Your task to perform on an android device: turn off data saver in the chrome app Image 0: 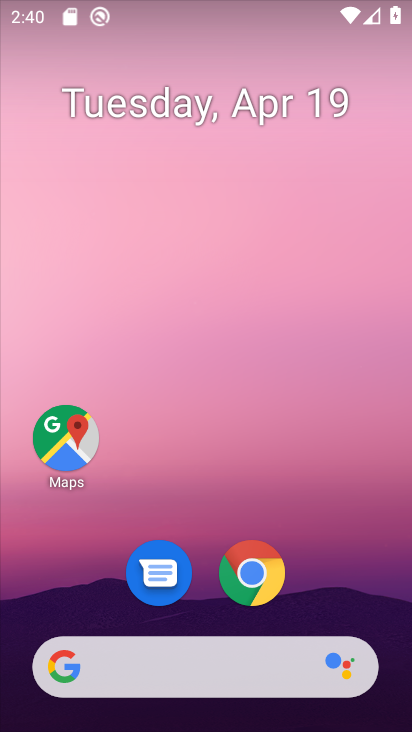
Step 0: click (276, 597)
Your task to perform on an android device: turn off data saver in the chrome app Image 1: 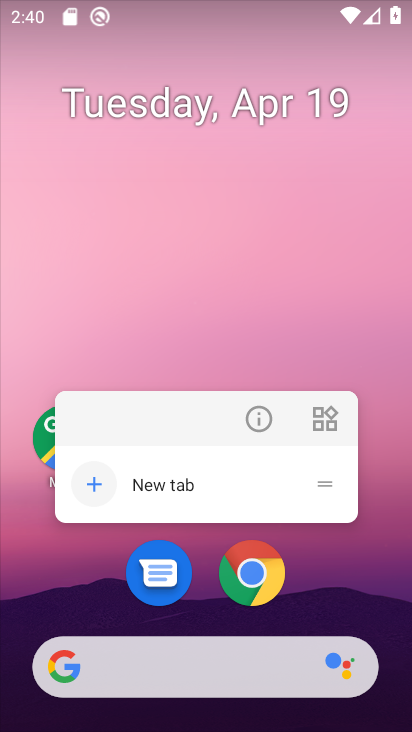
Step 1: click (263, 558)
Your task to perform on an android device: turn off data saver in the chrome app Image 2: 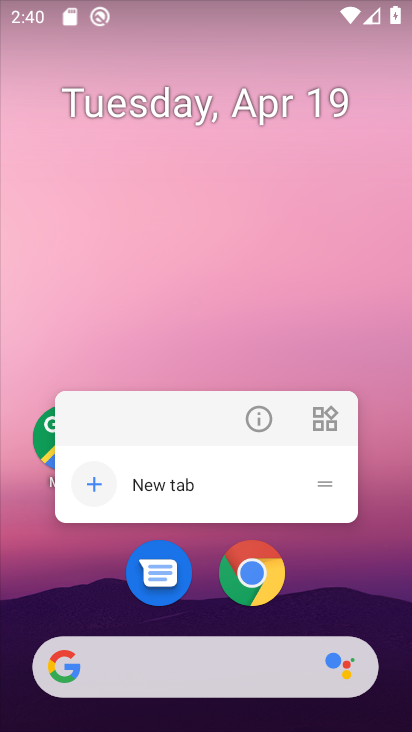
Step 2: click (258, 578)
Your task to perform on an android device: turn off data saver in the chrome app Image 3: 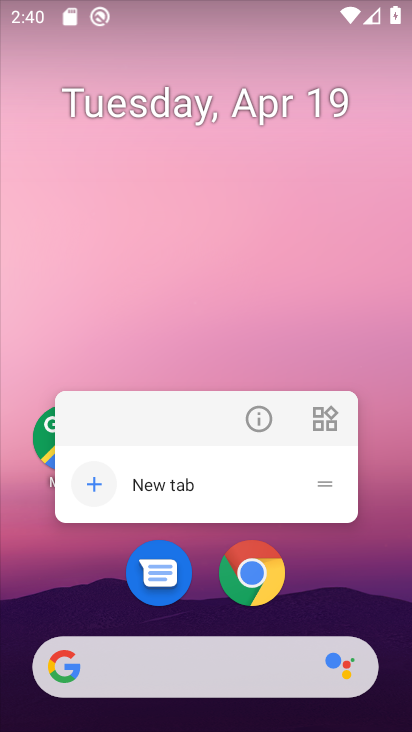
Step 3: click (246, 578)
Your task to perform on an android device: turn off data saver in the chrome app Image 4: 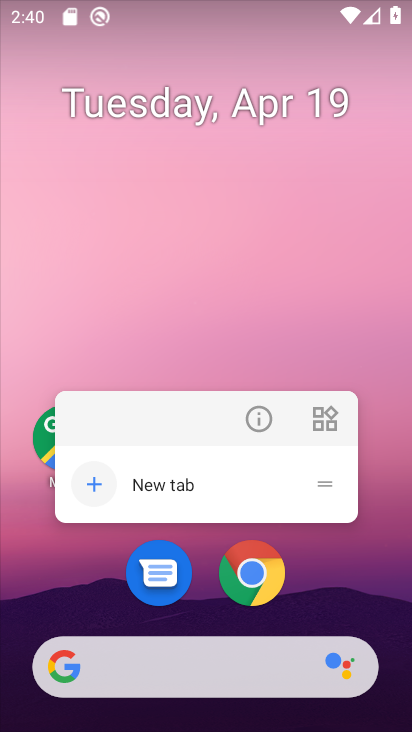
Step 4: click (246, 578)
Your task to perform on an android device: turn off data saver in the chrome app Image 5: 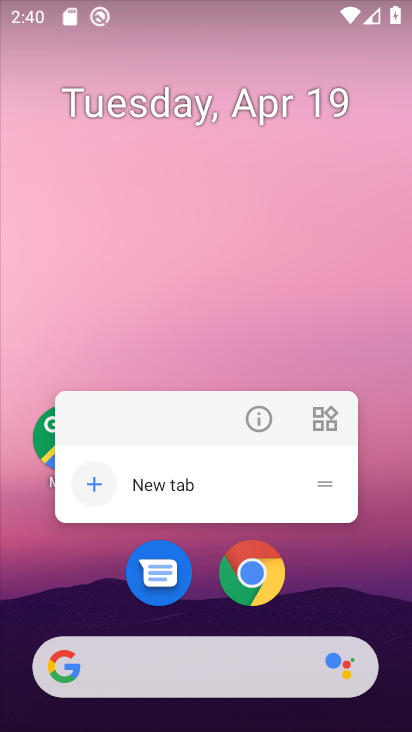
Step 5: click (272, 555)
Your task to perform on an android device: turn off data saver in the chrome app Image 6: 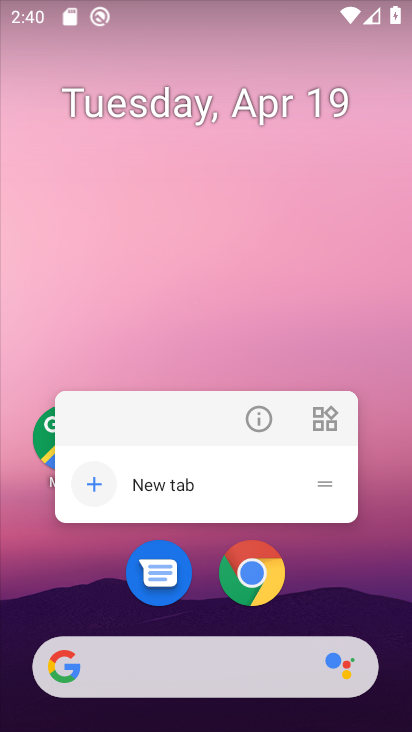
Step 6: click (241, 557)
Your task to perform on an android device: turn off data saver in the chrome app Image 7: 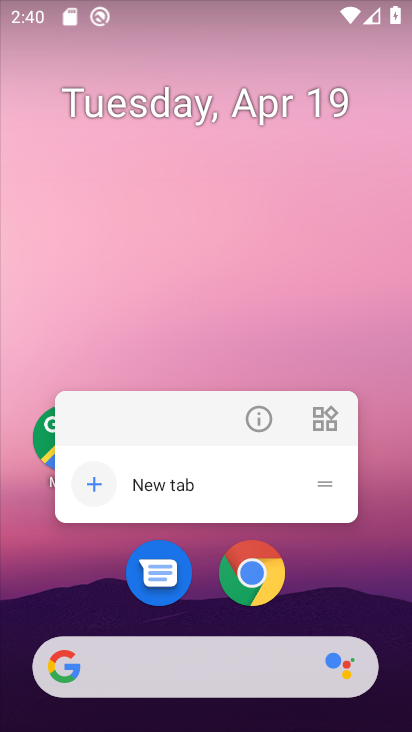
Step 7: click (252, 593)
Your task to perform on an android device: turn off data saver in the chrome app Image 8: 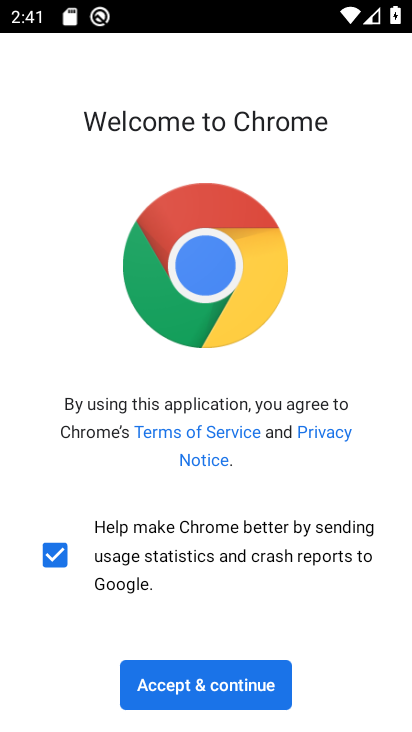
Step 8: click (245, 689)
Your task to perform on an android device: turn off data saver in the chrome app Image 9: 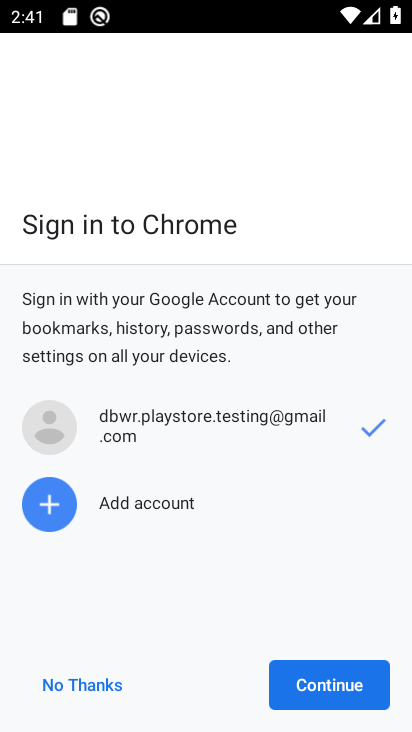
Step 9: click (311, 681)
Your task to perform on an android device: turn off data saver in the chrome app Image 10: 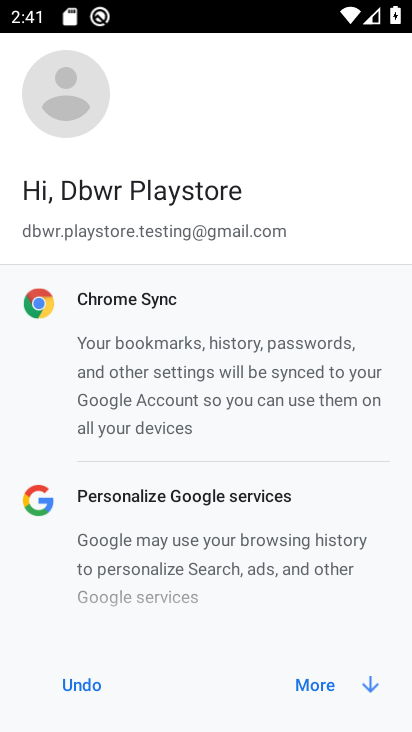
Step 10: click (312, 680)
Your task to perform on an android device: turn off data saver in the chrome app Image 11: 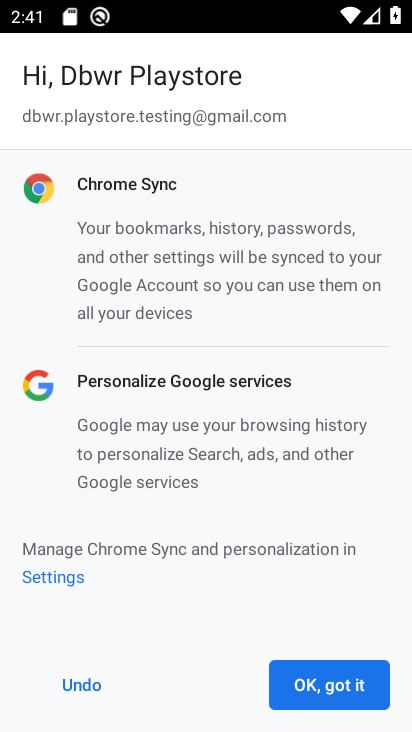
Step 11: click (312, 680)
Your task to perform on an android device: turn off data saver in the chrome app Image 12: 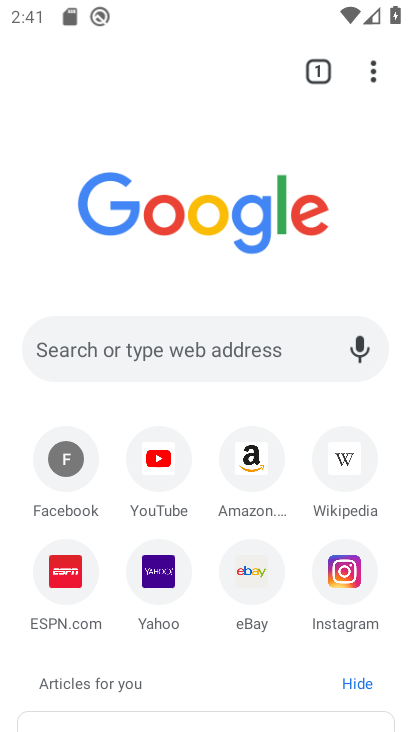
Step 12: click (373, 81)
Your task to perform on an android device: turn off data saver in the chrome app Image 13: 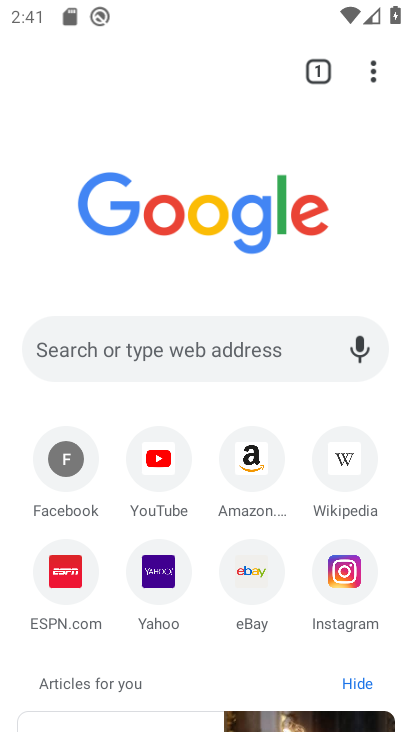
Step 13: click (372, 69)
Your task to perform on an android device: turn off data saver in the chrome app Image 14: 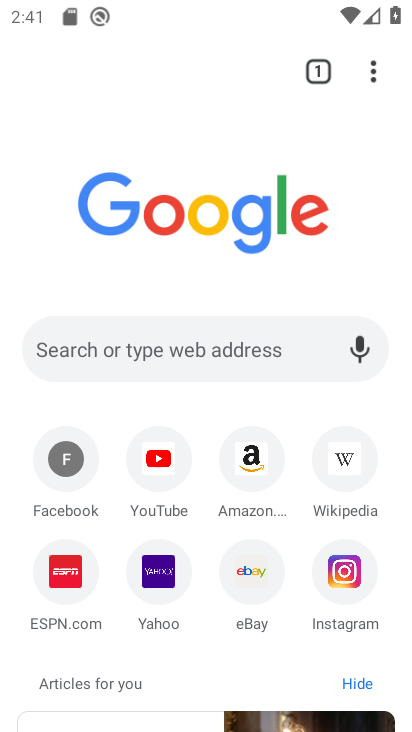
Step 14: drag from (372, 69) to (240, 626)
Your task to perform on an android device: turn off data saver in the chrome app Image 15: 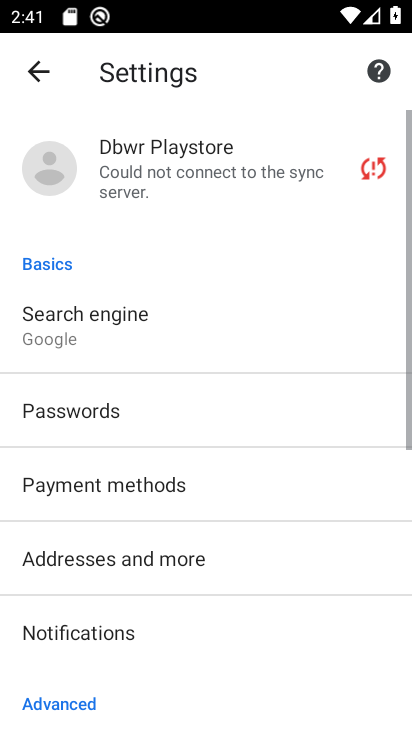
Step 15: drag from (169, 574) to (256, 269)
Your task to perform on an android device: turn off data saver in the chrome app Image 16: 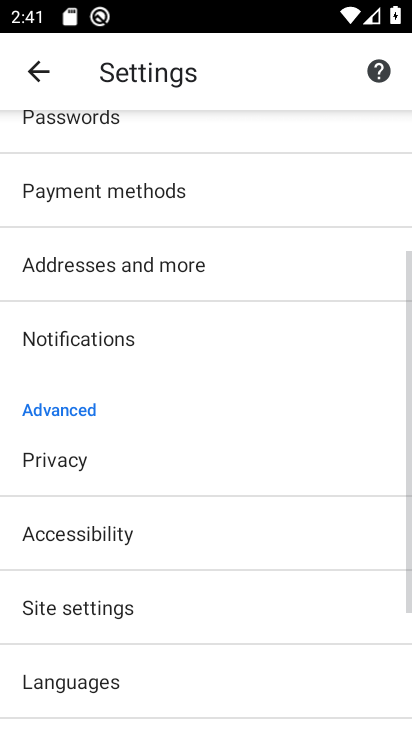
Step 16: drag from (169, 543) to (198, 418)
Your task to perform on an android device: turn off data saver in the chrome app Image 17: 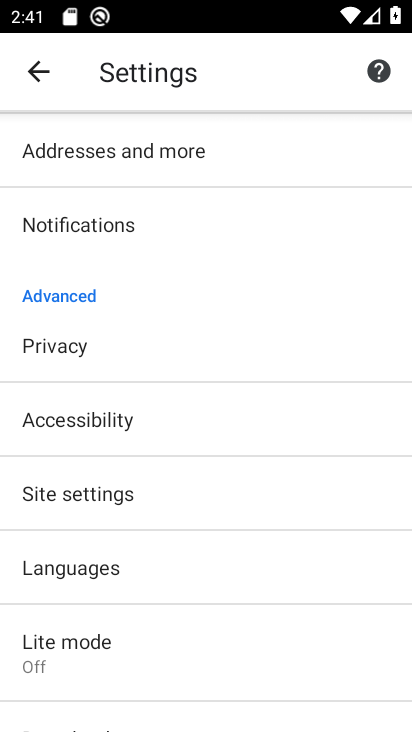
Step 17: click (120, 647)
Your task to perform on an android device: turn off data saver in the chrome app Image 18: 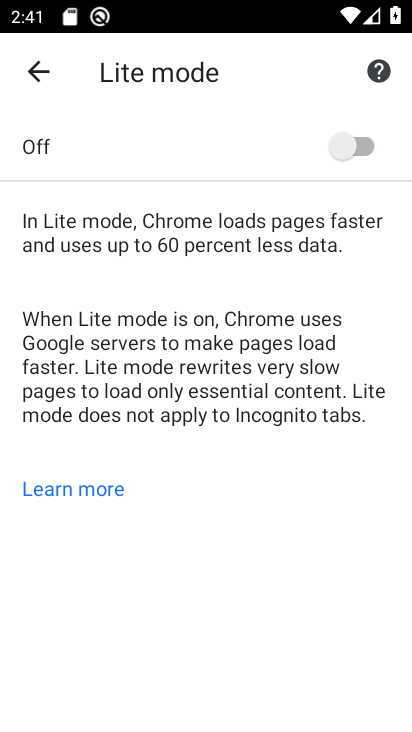
Step 18: task complete